Your task to perform on an android device: Open Amazon Image 0: 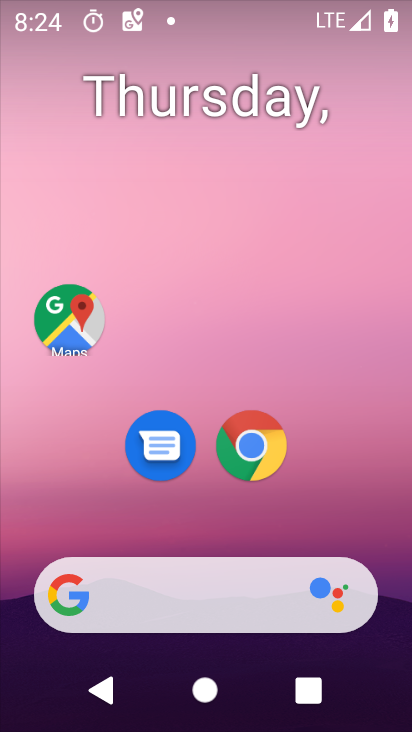
Step 0: drag from (209, 542) to (222, 259)
Your task to perform on an android device: Open Amazon Image 1: 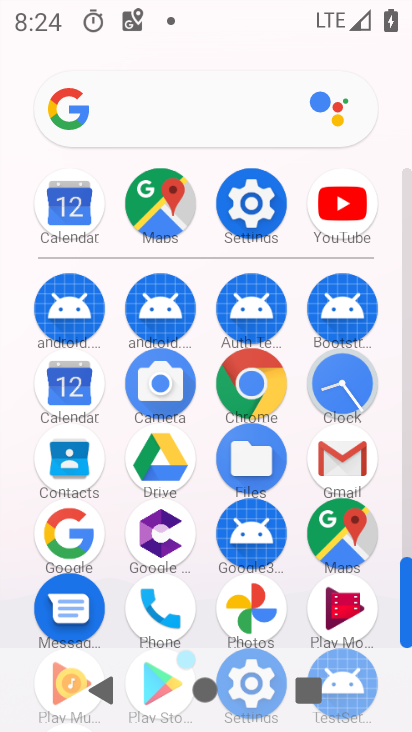
Step 1: click (247, 382)
Your task to perform on an android device: Open Amazon Image 2: 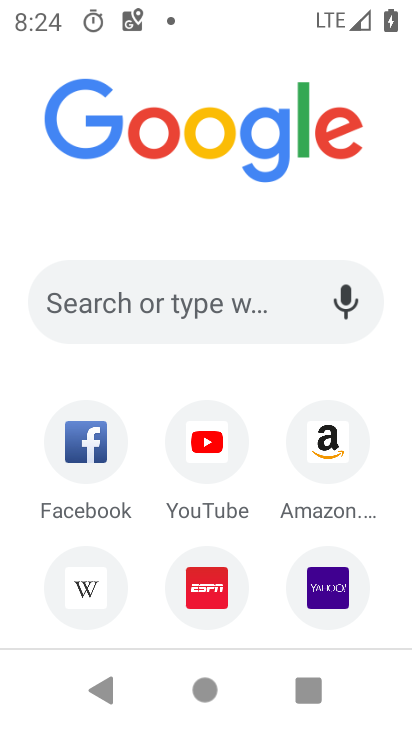
Step 2: click (319, 439)
Your task to perform on an android device: Open Amazon Image 3: 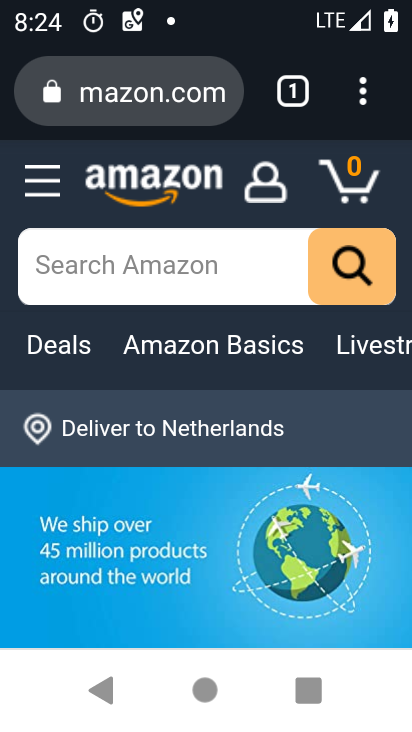
Step 3: click (208, 341)
Your task to perform on an android device: Open Amazon Image 4: 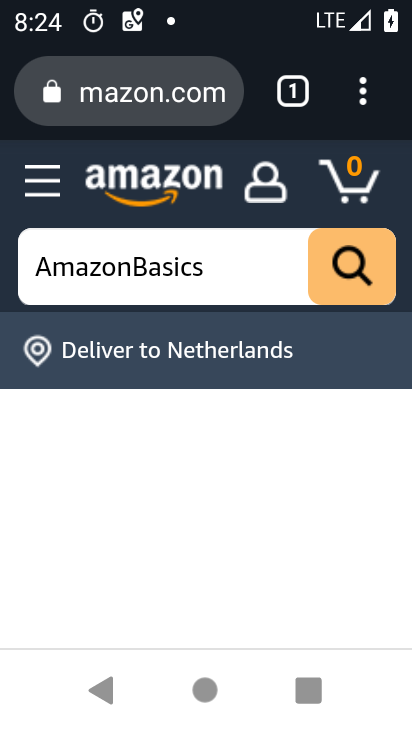
Step 4: task complete